Your task to perform on an android device: open chrome privacy settings Image 0: 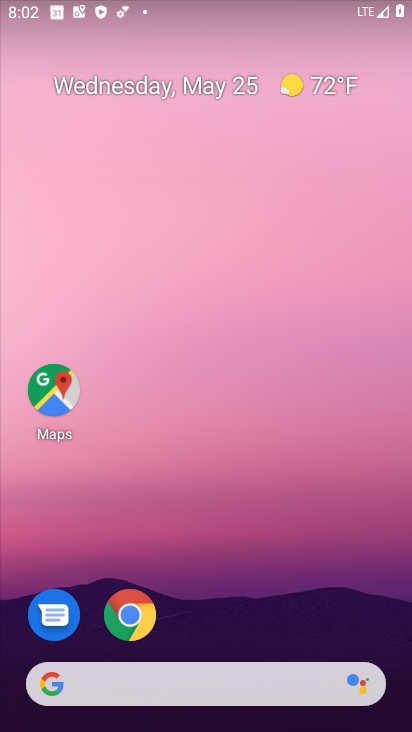
Step 0: click (127, 608)
Your task to perform on an android device: open chrome privacy settings Image 1: 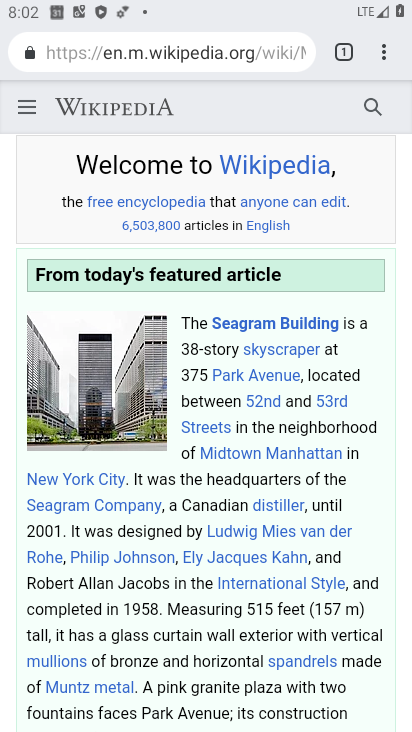
Step 1: click (380, 46)
Your task to perform on an android device: open chrome privacy settings Image 2: 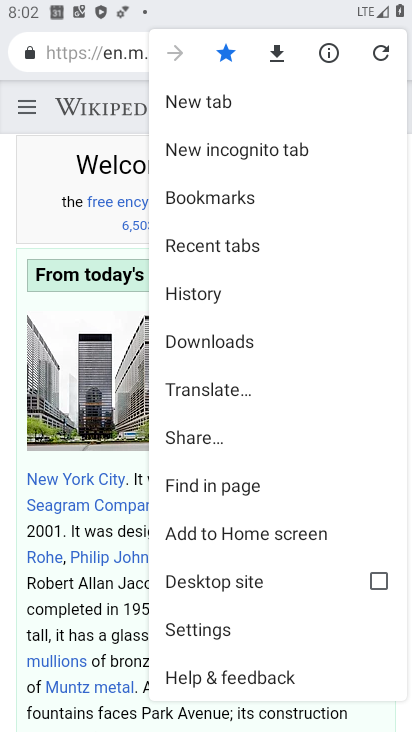
Step 2: click (223, 624)
Your task to perform on an android device: open chrome privacy settings Image 3: 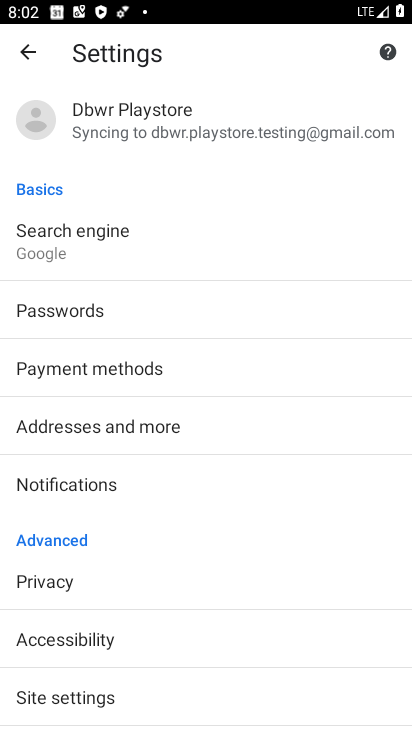
Step 3: click (222, 576)
Your task to perform on an android device: open chrome privacy settings Image 4: 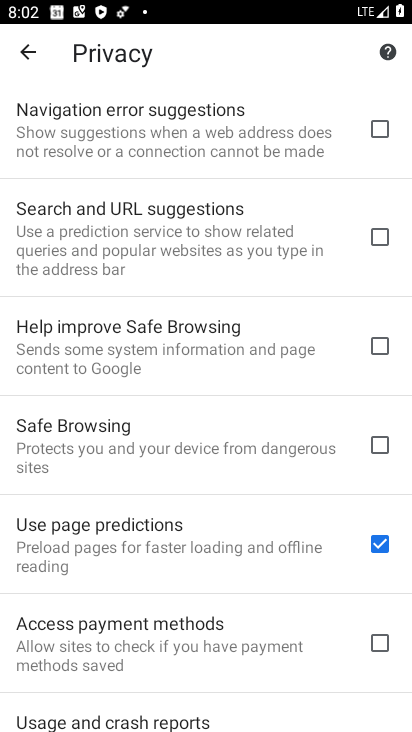
Step 4: task complete